Your task to perform on an android device: Show me productivity apps on the Play Store Image 0: 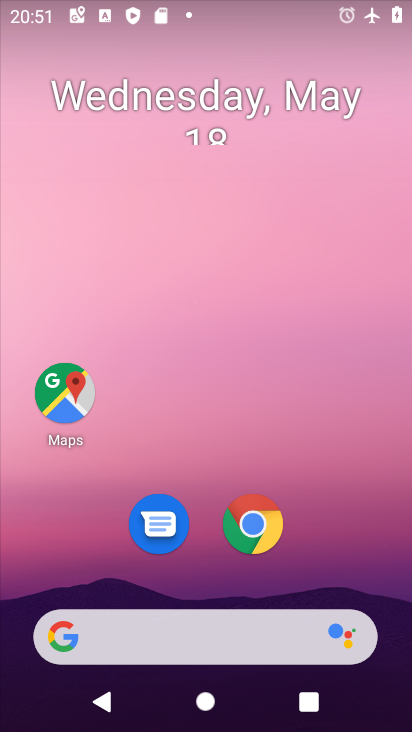
Step 0: drag from (203, 471) to (238, 34)
Your task to perform on an android device: Show me productivity apps on the Play Store Image 1: 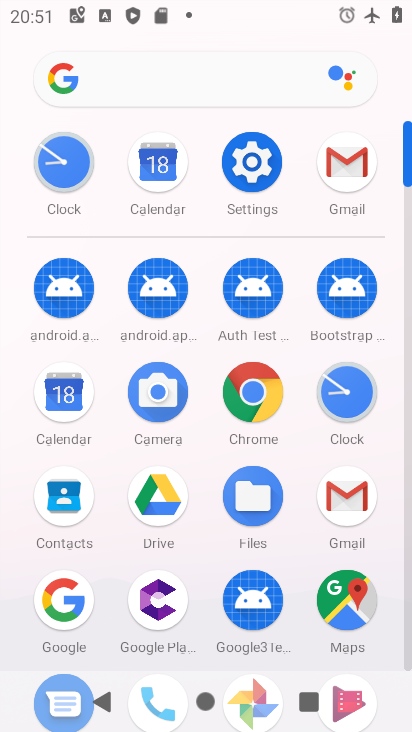
Step 1: drag from (187, 474) to (178, 159)
Your task to perform on an android device: Show me productivity apps on the Play Store Image 2: 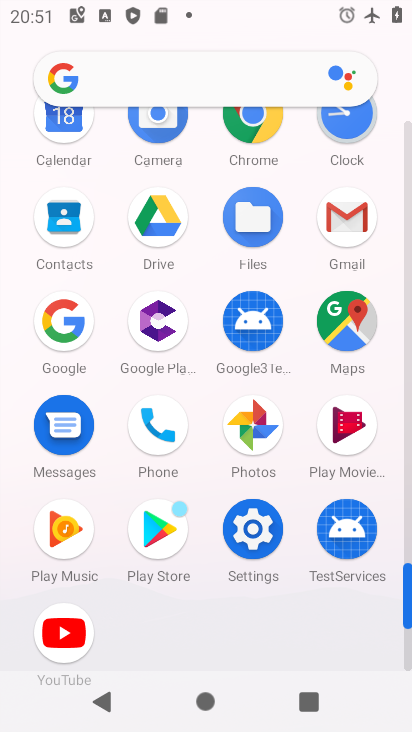
Step 2: click (155, 520)
Your task to perform on an android device: Show me productivity apps on the Play Store Image 3: 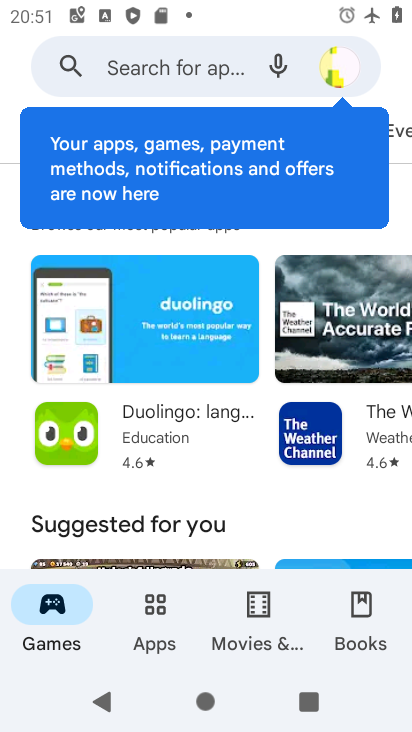
Step 3: click (158, 599)
Your task to perform on an android device: Show me productivity apps on the Play Store Image 4: 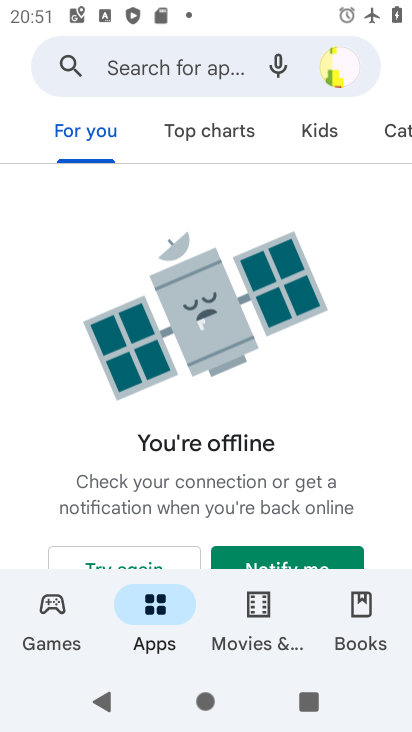
Step 4: click (390, 125)
Your task to perform on an android device: Show me productivity apps on the Play Store Image 5: 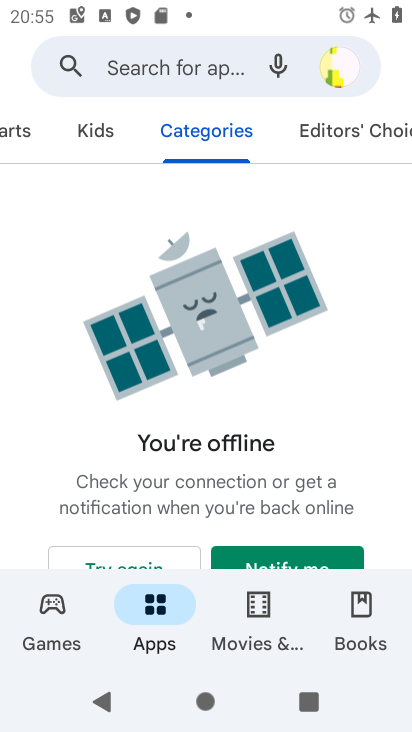
Step 5: task complete